Your task to perform on an android device: change the clock style Image 0: 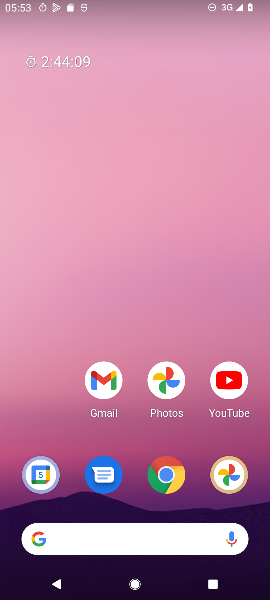
Step 0: press home button
Your task to perform on an android device: change the clock style Image 1: 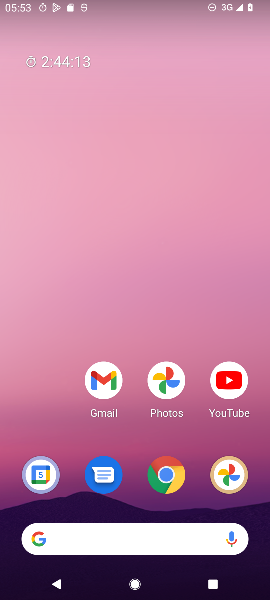
Step 1: drag from (70, 437) to (54, 195)
Your task to perform on an android device: change the clock style Image 2: 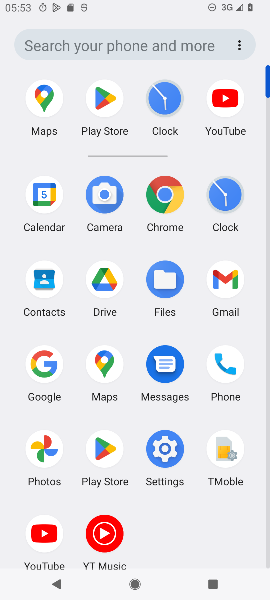
Step 2: click (231, 192)
Your task to perform on an android device: change the clock style Image 3: 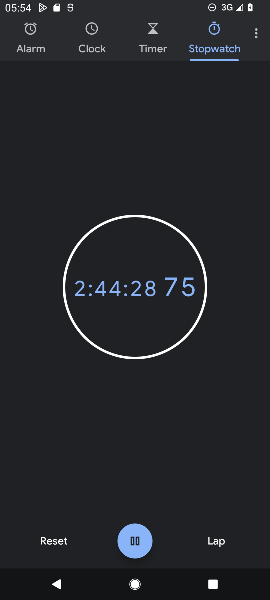
Step 3: click (256, 34)
Your task to perform on an android device: change the clock style Image 4: 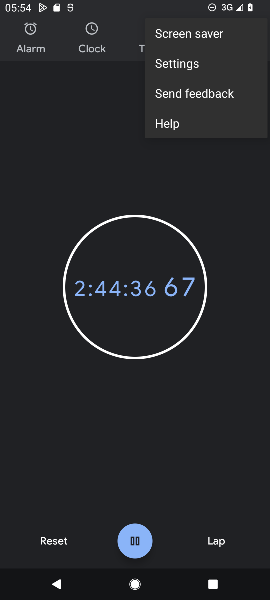
Step 4: click (194, 70)
Your task to perform on an android device: change the clock style Image 5: 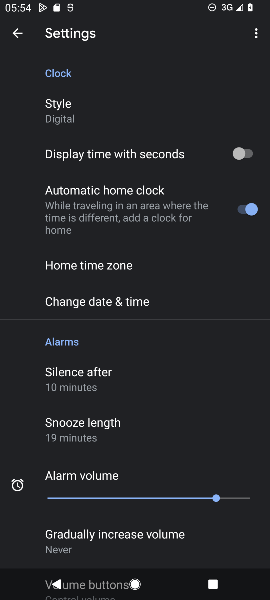
Step 5: drag from (195, 337) to (199, 296)
Your task to perform on an android device: change the clock style Image 6: 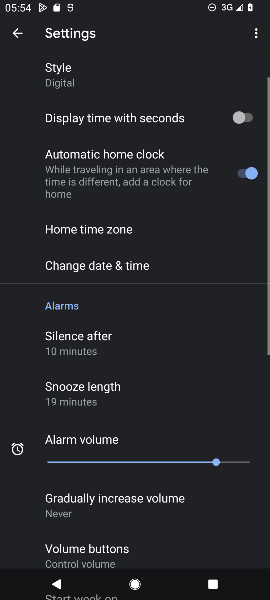
Step 6: drag from (204, 353) to (207, 274)
Your task to perform on an android device: change the clock style Image 7: 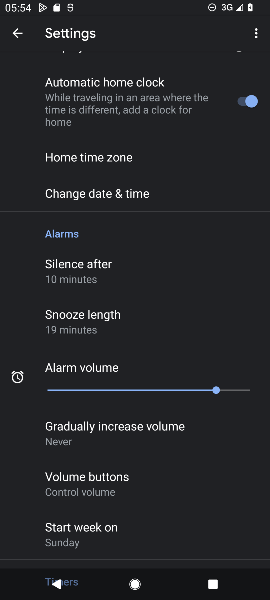
Step 7: drag from (206, 372) to (200, 235)
Your task to perform on an android device: change the clock style Image 8: 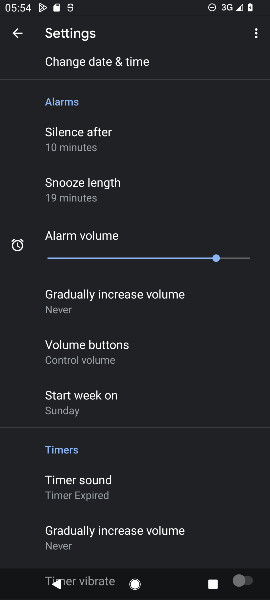
Step 8: drag from (212, 382) to (211, 255)
Your task to perform on an android device: change the clock style Image 9: 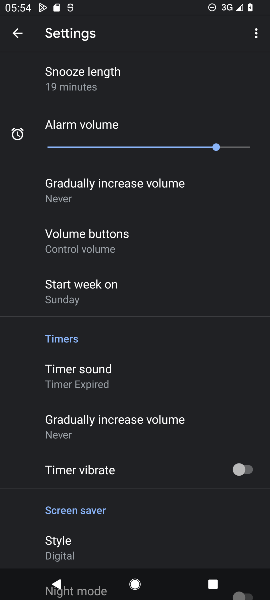
Step 9: drag from (216, 216) to (214, 325)
Your task to perform on an android device: change the clock style Image 10: 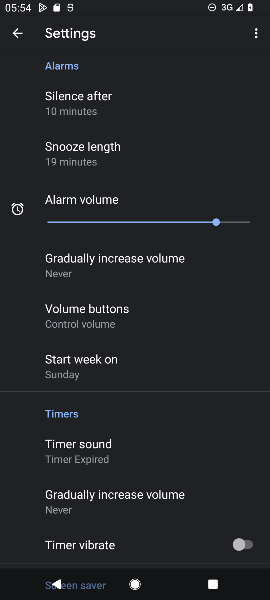
Step 10: drag from (238, 164) to (240, 239)
Your task to perform on an android device: change the clock style Image 11: 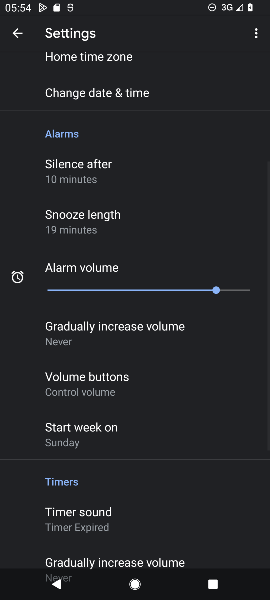
Step 11: drag from (230, 144) to (230, 227)
Your task to perform on an android device: change the clock style Image 12: 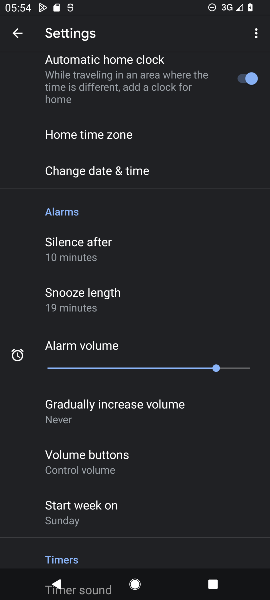
Step 12: drag from (207, 110) to (208, 256)
Your task to perform on an android device: change the clock style Image 13: 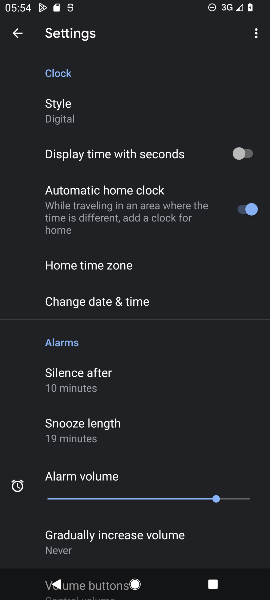
Step 13: click (79, 119)
Your task to perform on an android device: change the clock style Image 14: 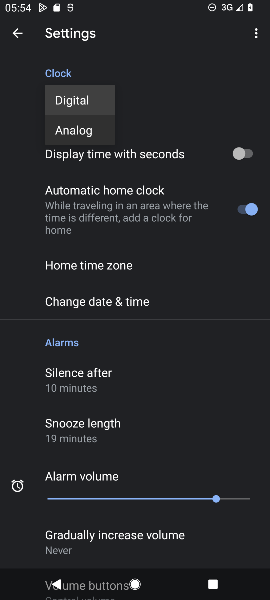
Step 14: click (82, 128)
Your task to perform on an android device: change the clock style Image 15: 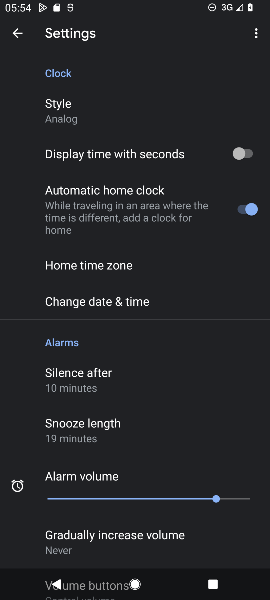
Step 15: task complete